Your task to perform on an android device: change notification settings in the gmail app Image 0: 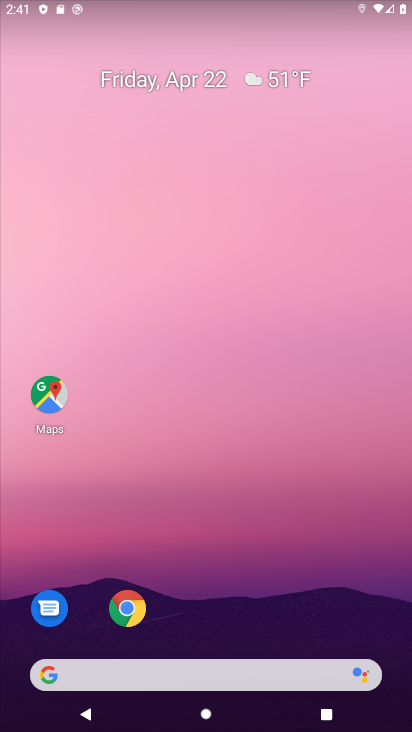
Step 0: drag from (240, 477) to (234, 197)
Your task to perform on an android device: change notification settings in the gmail app Image 1: 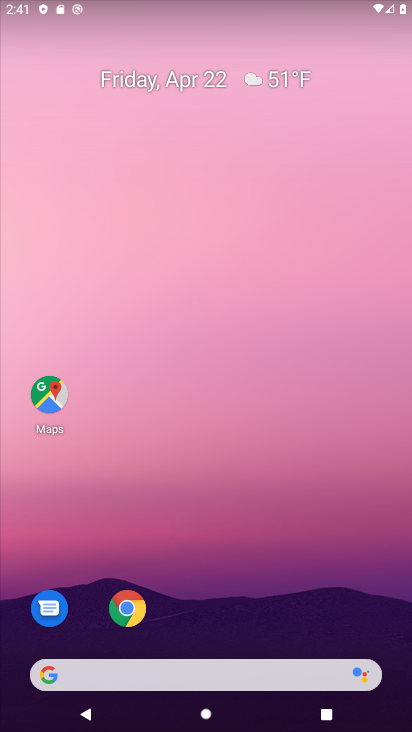
Step 1: drag from (219, 557) to (229, 125)
Your task to perform on an android device: change notification settings in the gmail app Image 2: 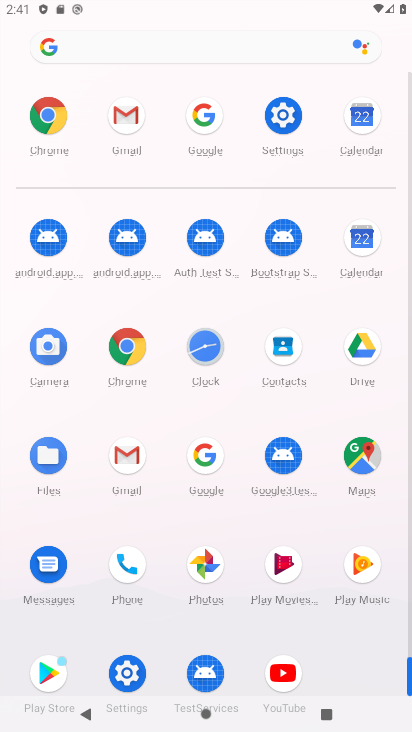
Step 2: click (122, 121)
Your task to perform on an android device: change notification settings in the gmail app Image 3: 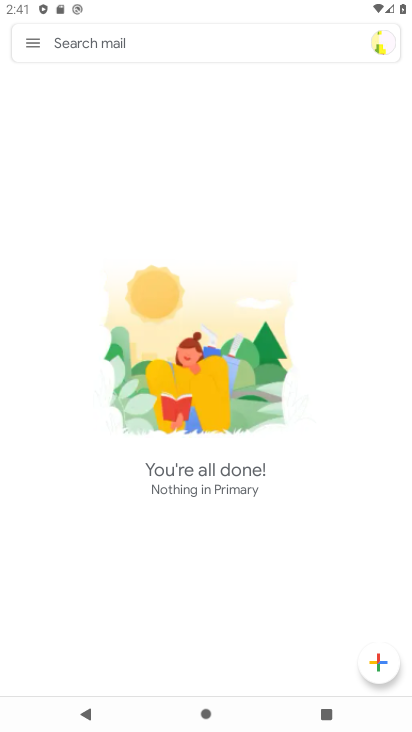
Step 3: click (28, 41)
Your task to perform on an android device: change notification settings in the gmail app Image 4: 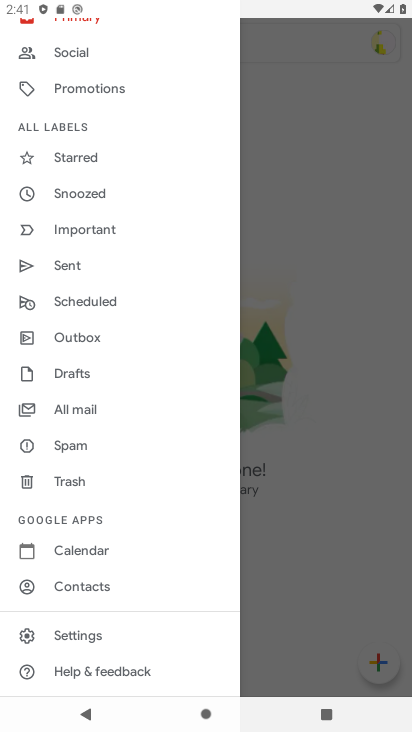
Step 4: click (100, 628)
Your task to perform on an android device: change notification settings in the gmail app Image 5: 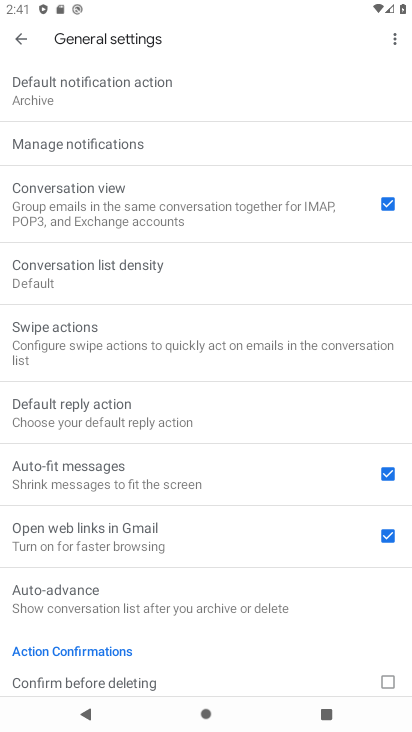
Step 5: click (154, 151)
Your task to perform on an android device: change notification settings in the gmail app Image 6: 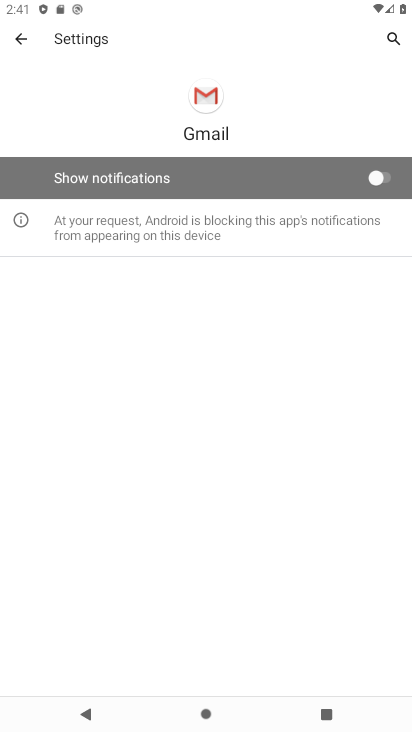
Step 6: click (387, 176)
Your task to perform on an android device: change notification settings in the gmail app Image 7: 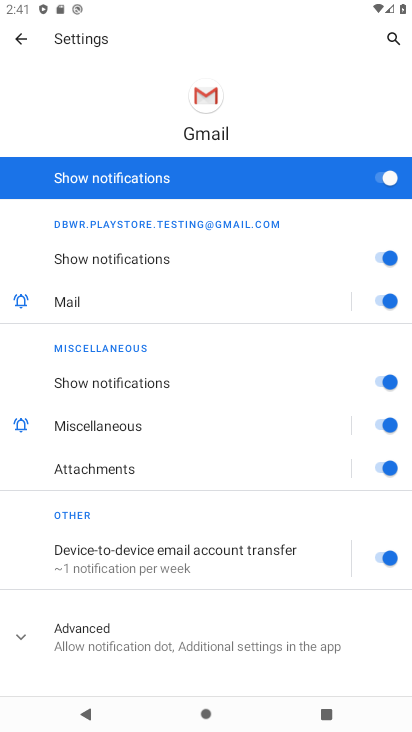
Step 7: task complete